Your task to perform on an android device: move an email to a new category in the gmail app Image 0: 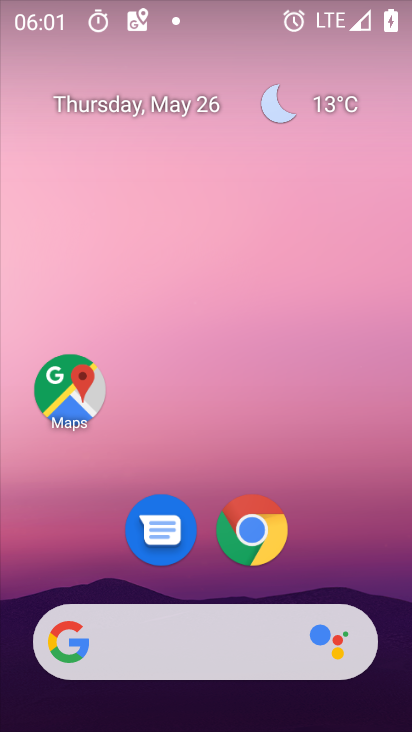
Step 0: drag from (224, 638) to (248, 3)
Your task to perform on an android device: move an email to a new category in the gmail app Image 1: 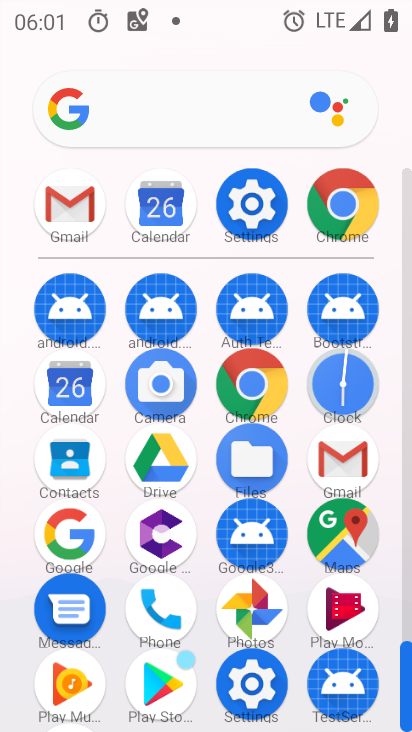
Step 1: click (326, 466)
Your task to perform on an android device: move an email to a new category in the gmail app Image 2: 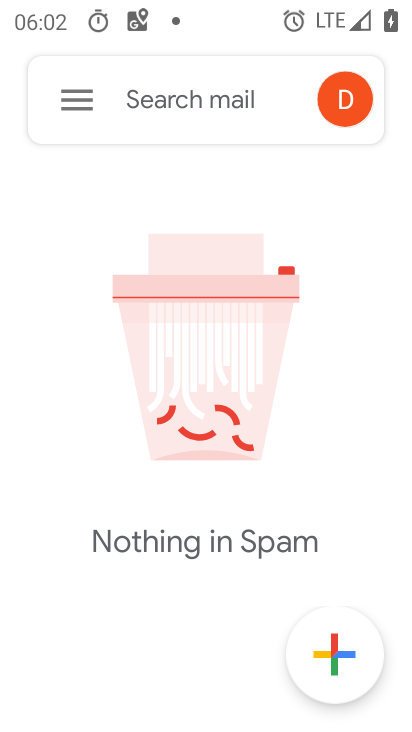
Step 2: task complete